Your task to perform on an android device: Open Chrome and go to settings Image 0: 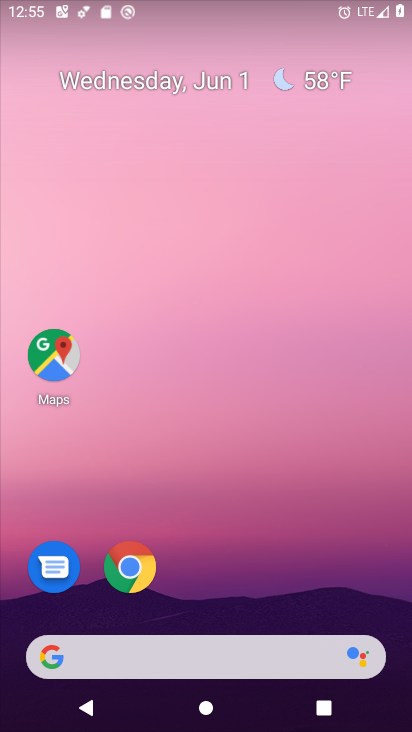
Step 0: click (125, 569)
Your task to perform on an android device: Open Chrome and go to settings Image 1: 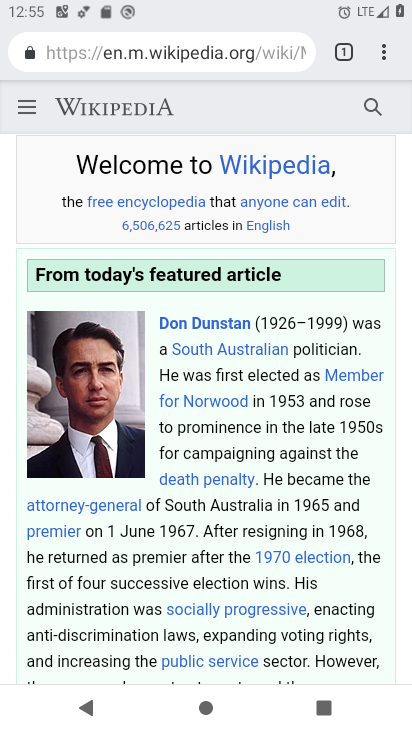
Step 1: click (379, 51)
Your task to perform on an android device: Open Chrome and go to settings Image 2: 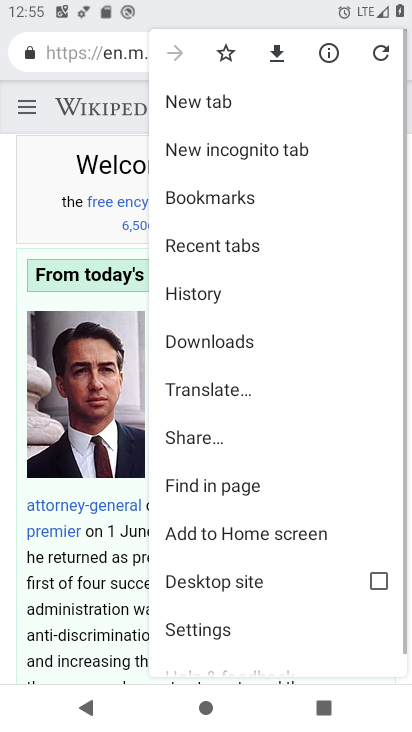
Step 2: click (261, 626)
Your task to perform on an android device: Open Chrome and go to settings Image 3: 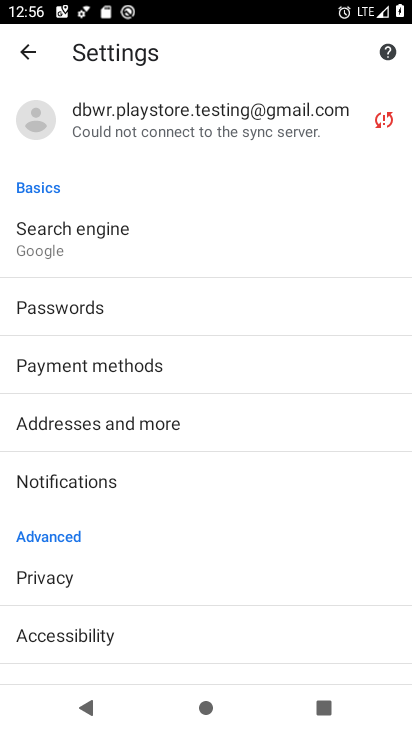
Step 3: task complete